Your task to perform on an android device: open app "Grab" (install if not already installed) Image 0: 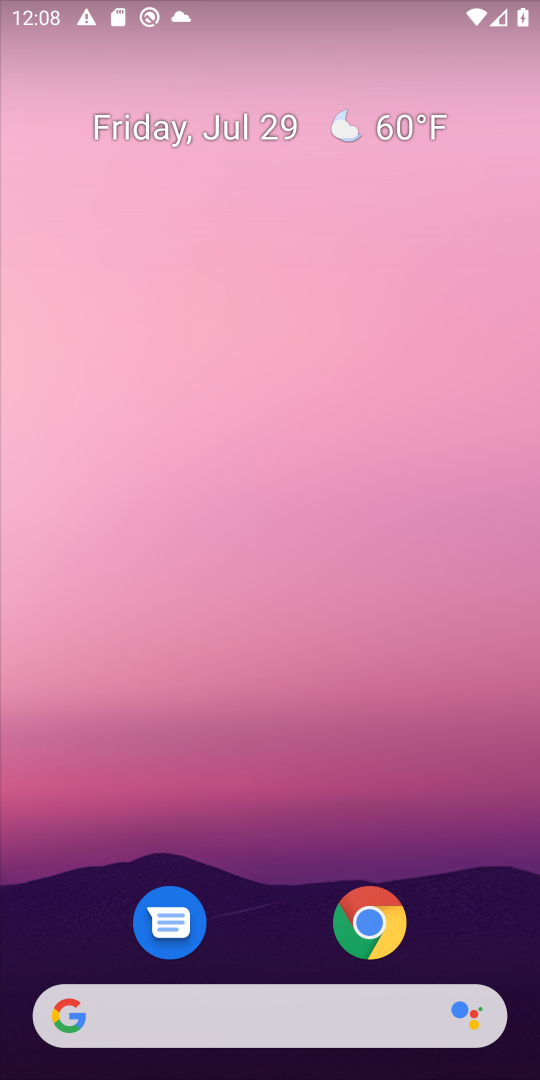
Step 0: drag from (249, 932) to (371, 127)
Your task to perform on an android device: open app "Grab" (install if not already installed) Image 1: 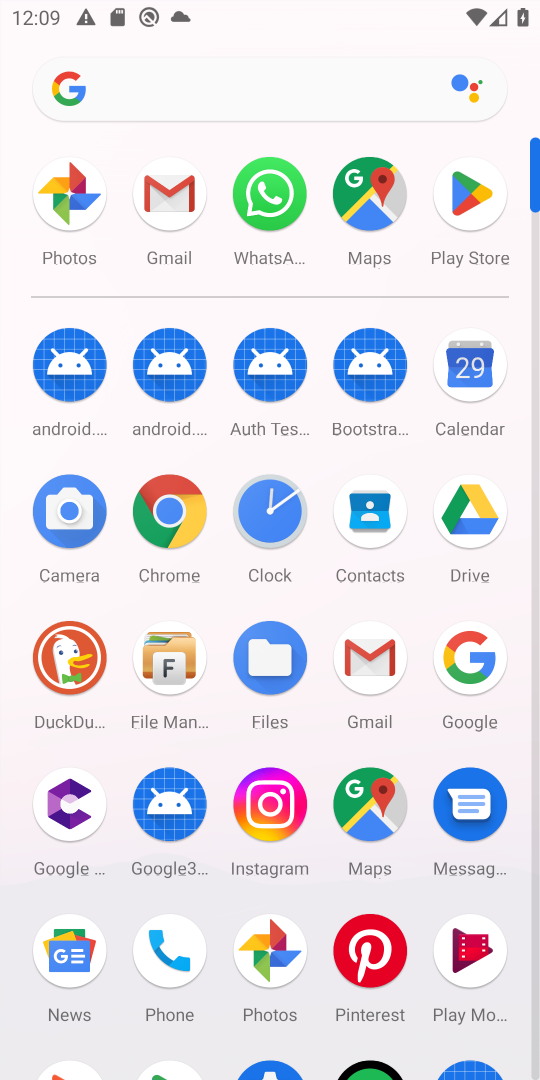
Step 1: drag from (202, 1023) to (245, 387)
Your task to perform on an android device: open app "Grab" (install if not already installed) Image 2: 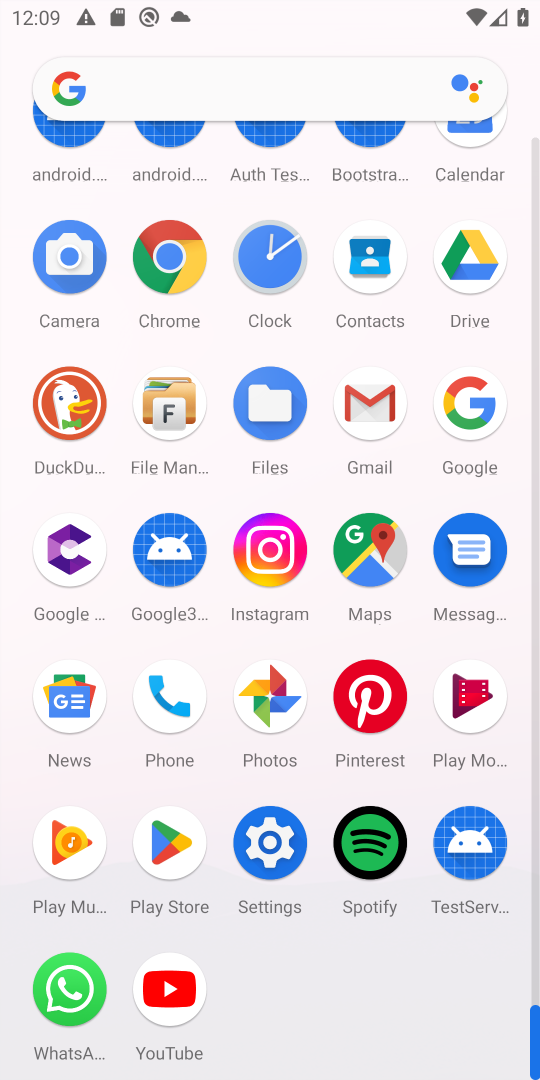
Step 2: click (176, 844)
Your task to perform on an android device: open app "Grab" (install if not already installed) Image 3: 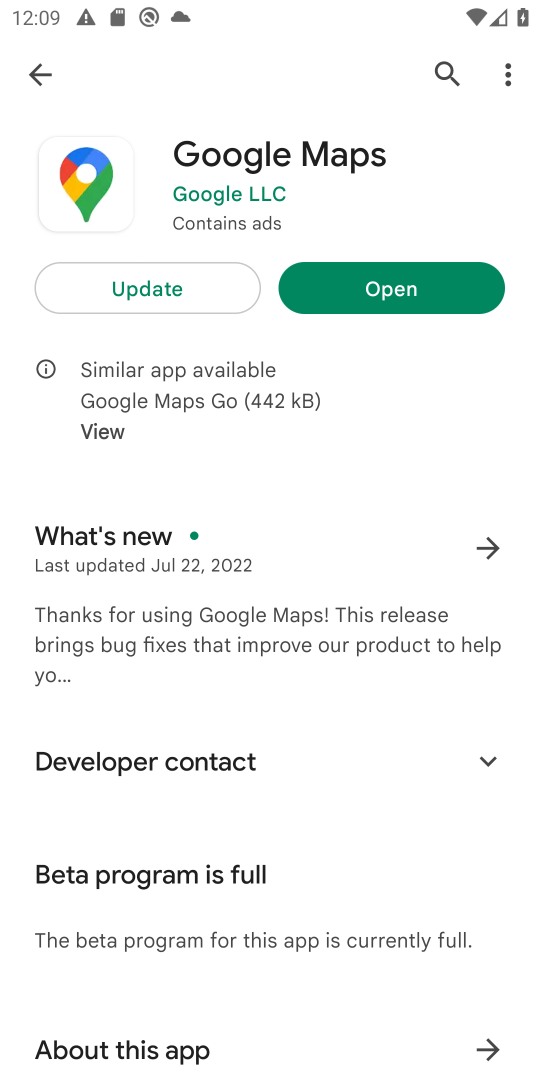
Step 3: click (449, 72)
Your task to perform on an android device: open app "Grab" (install if not already installed) Image 4: 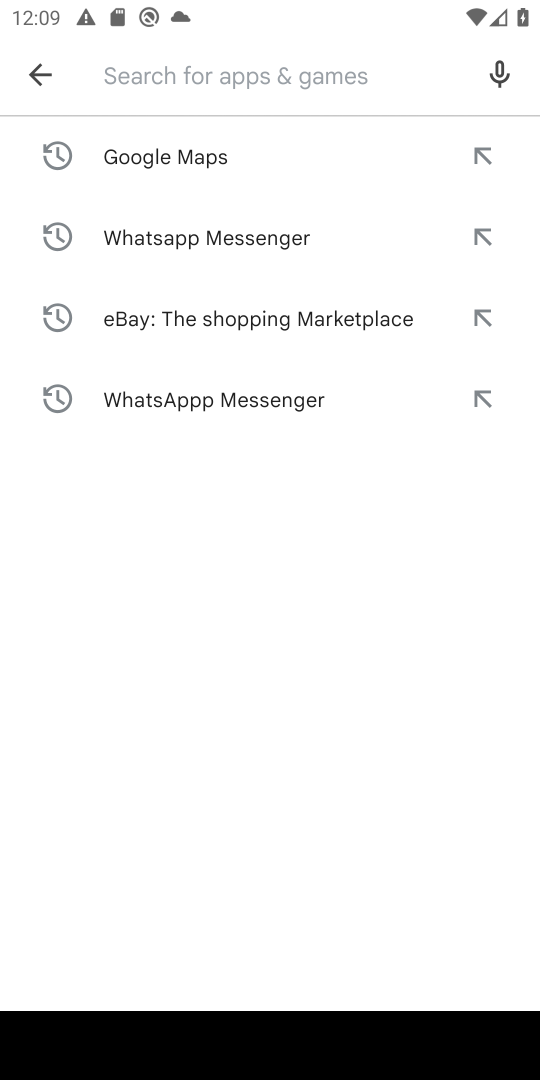
Step 4: type "Grab"
Your task to perform on an android device: open app "Grab" (install if not already installed) Image 5: 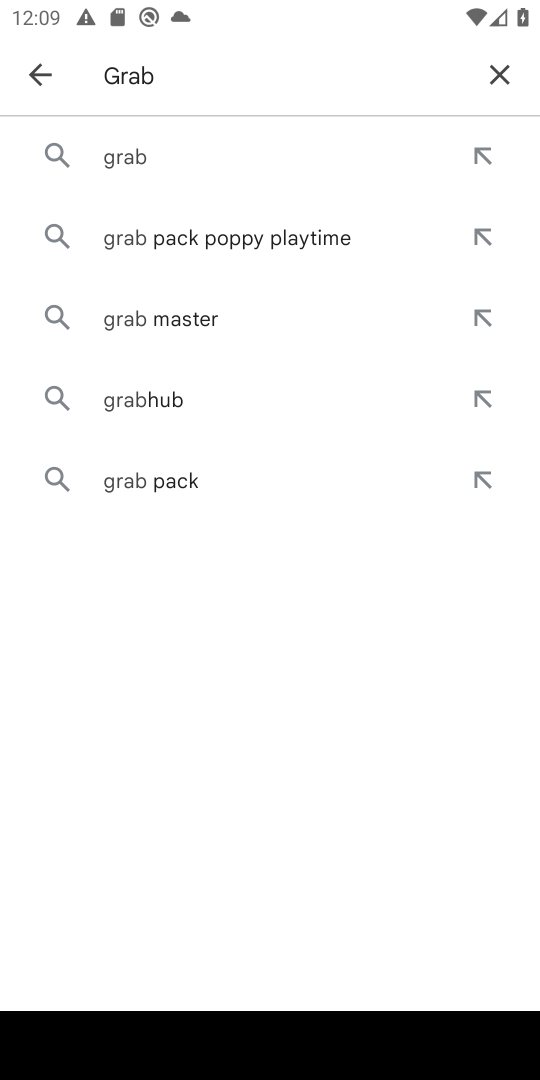
Step 5: press enter
Your task to perform on an android device: open app "Grab" (install if not already installed) Image 6: 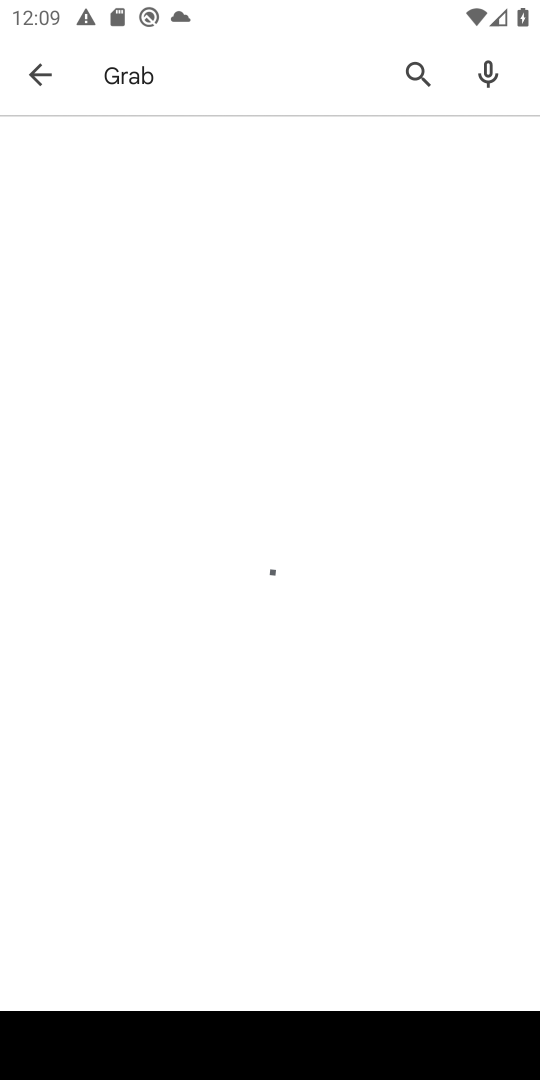
Step 6: press enter
Your task to perform on an android device: open app "Grab" (install if not already installed) Image 7: 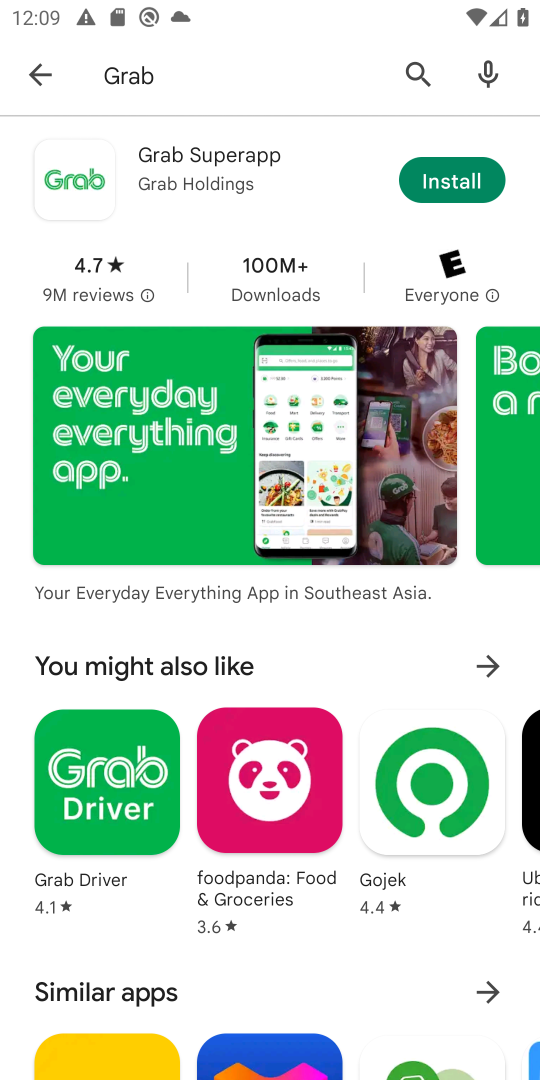
Step 7: click (475, 183)
Your task to perform on an android device: open app "Grab" (install if not already installed) Image 8: 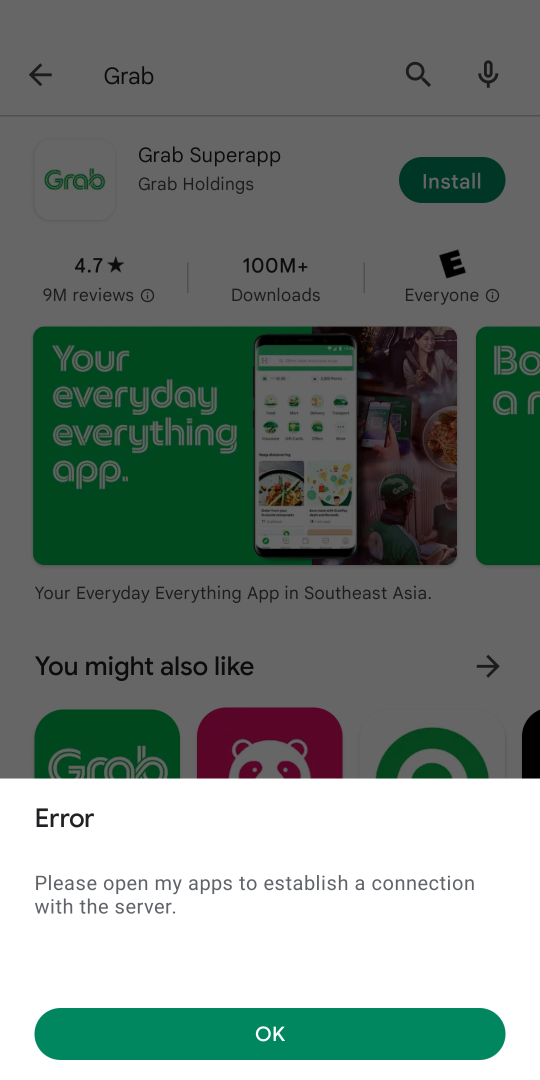
Step 8: task complete